Your task to perform on an android device: Is it going to rain this weekend? Image 0: 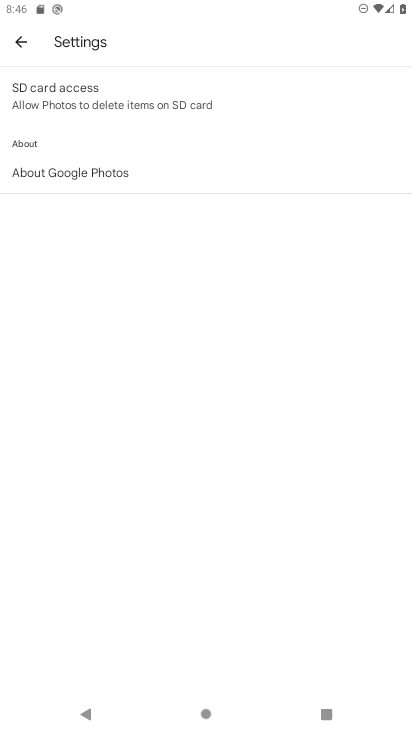
Step 0: press home button
Your task to perform on an android device: Is it going to rain this weekend? Image 1: 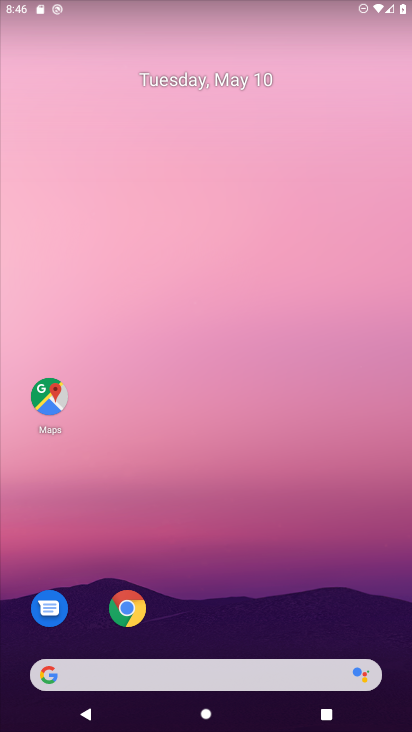
Step 1: drag from (330, 600) to (317, 98)
Your task to perform on an android device: Is it going to rain this weekend? Image 2: 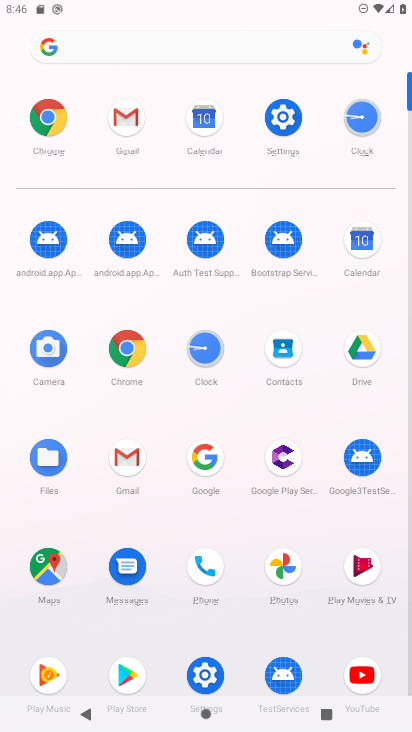
Step 2: click (204, 460)
Your task to perform on an android device: Is it going to rain this weekend? Image 3: 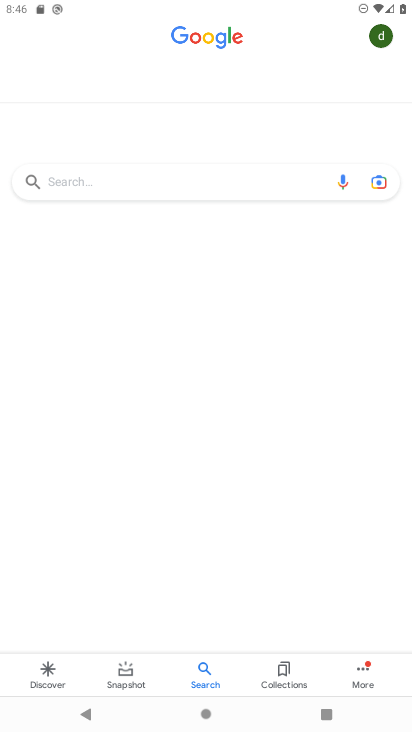
Step 3: click (136, 172)
Your task to perform on an android device: Is it going to rain this weekend? Image 4: 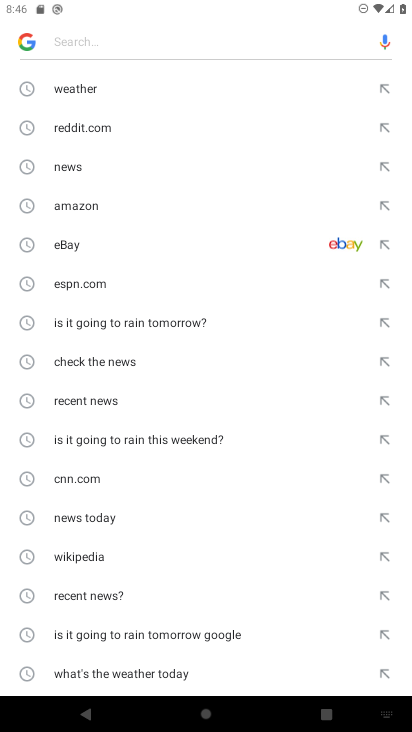
Step 4: click (209, 434)
Your task to perform on an android device: Is it going to rain this weekend? Image 5: 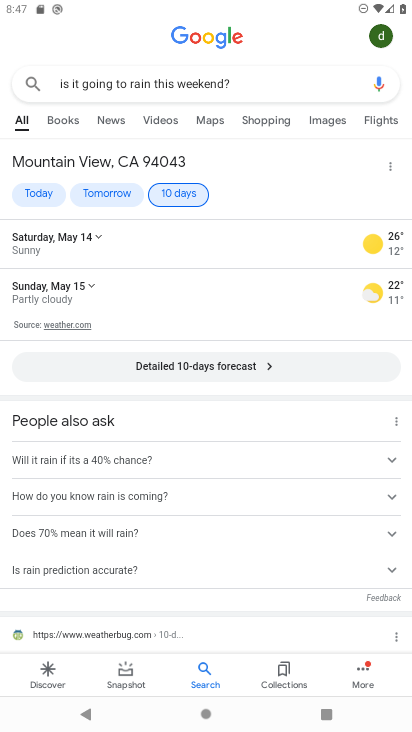
Step 5: task complete